Your task to perform on an android device: Go to Reddit.com Image 0: 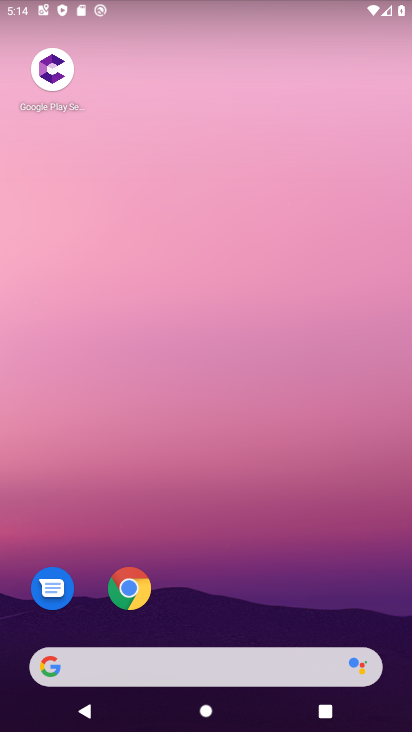
Step 0: drag from (181, 634) to (163, 307)
Your task to perform on an android device: Go to Reddit.com Image 1: 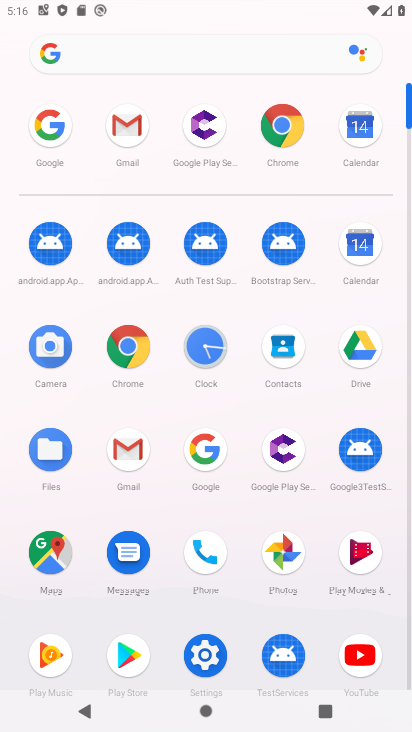
Step 1: click (190, 456)
Your task to perform on an android device: Go to Reddit.com Image 2: 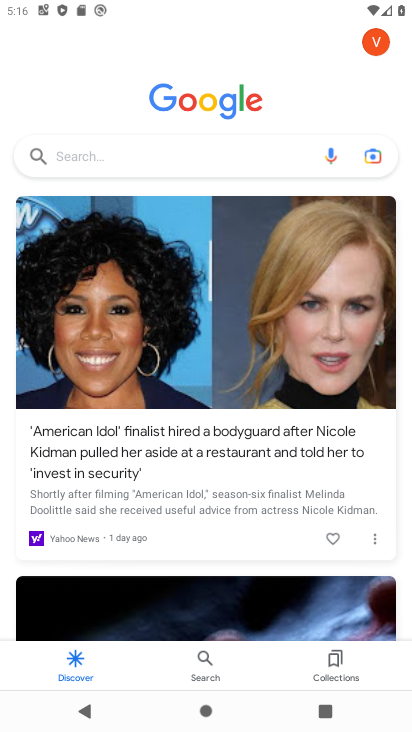
Step 2: click (106, 154)
Your task to perform on an android device: Go to Reddit.com Image 3: 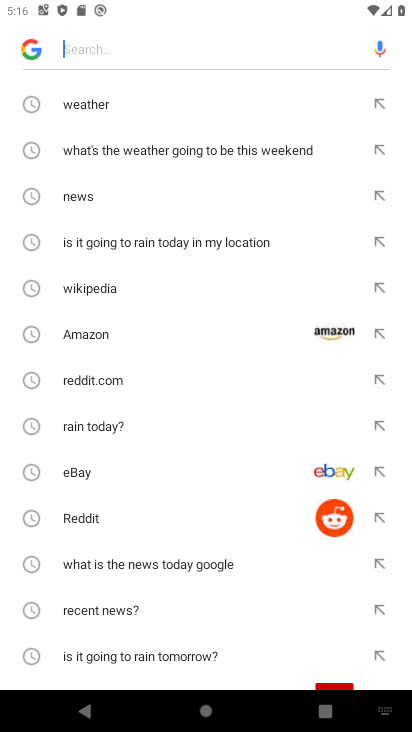
Step 3: click (98, 382)
Your task to perform on an android device: Go to Reddit.com Image 4: 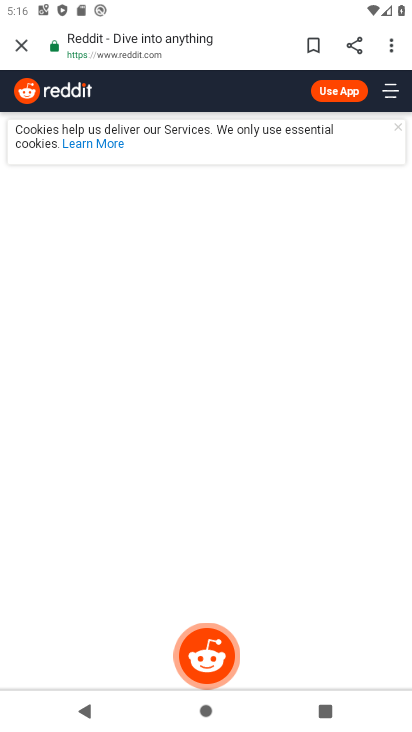
Step 4: task complete